Your task to perform on an android device: move an email to a new category in the gmail app Image 0: 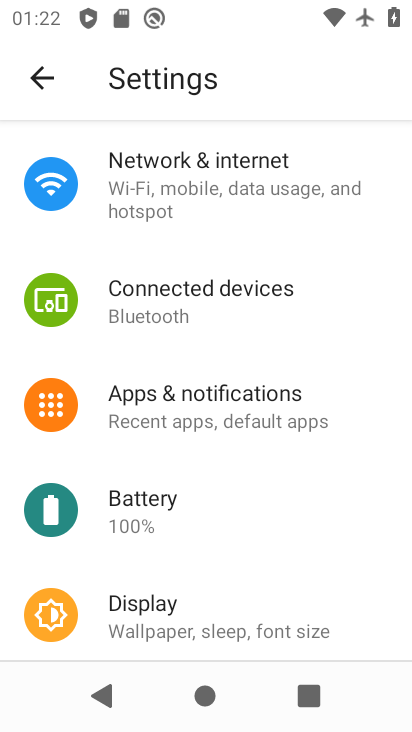
Step 0: press back button
Your task to perform on an android device: move an email to a new category in the gmail app Image 1: 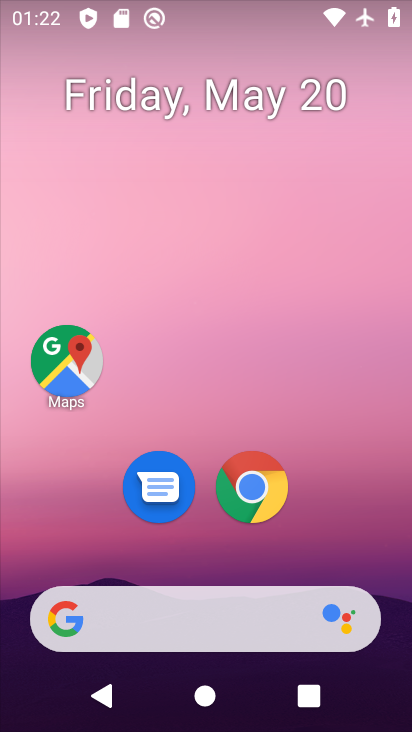
Step 1: drag from (364, 511) to (238, 1)
Your task to perform on an android device: move an email to a new category in the gmail app Image 2: 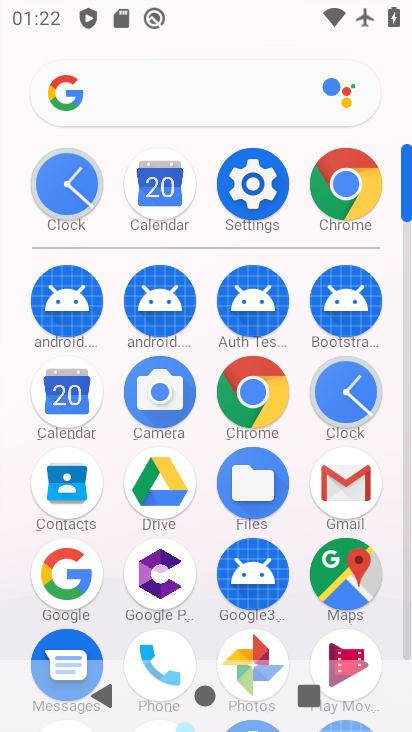
Step 2: drag from (4, 589) to (0, 277)
Your task to perform on an android device: move an email to a new category in the gmail app Image 3: 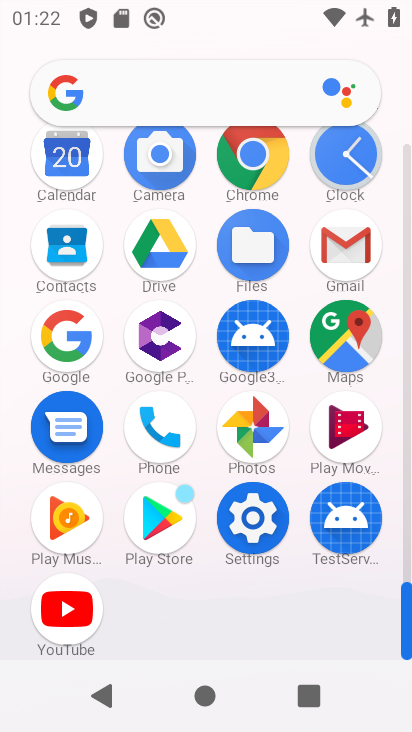
Step 3: drag from (7, 573) to (7, 335)
Your task to perform on an android device: move an email to a new category in the gmail app Image 4: 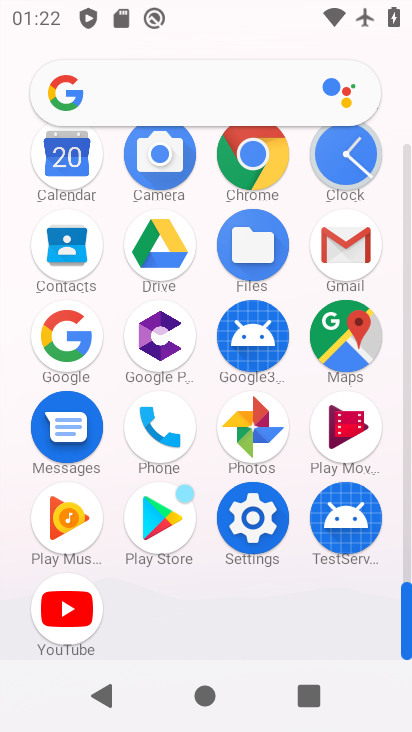
Step 4: click (345, 239)
Your task to perform on an android device: move an email to a new category in the gmail app Image 5: 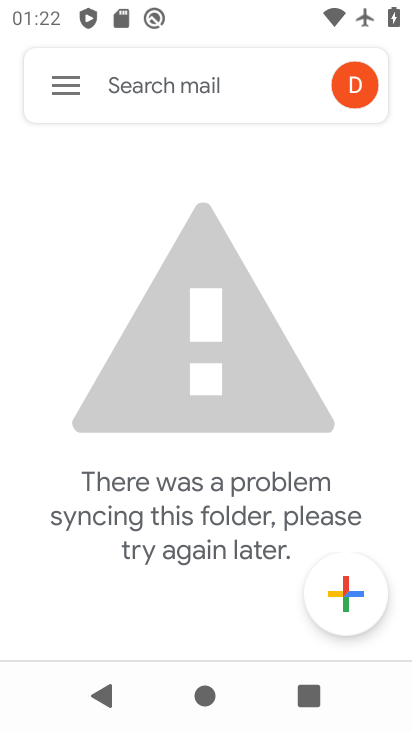
Step 5: click (51, 85)
Your task to perform on an android device: move an email to a new category in the gmail app Image 6: 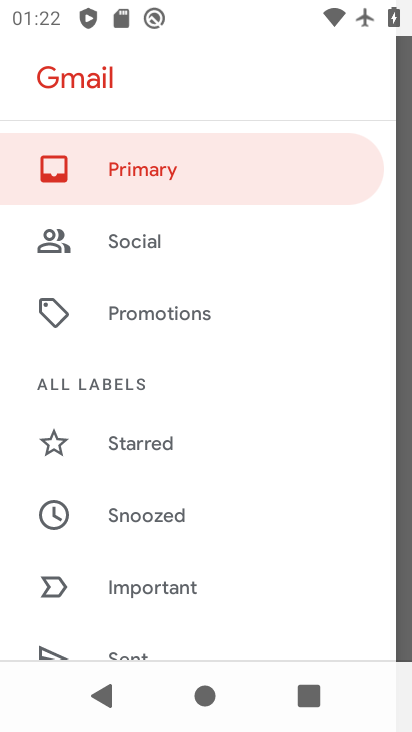
Step 6: drag from (173, 595) to (225, 219)
Your task to perform on an android device: move an email to a new category in the gmail app Image 7: 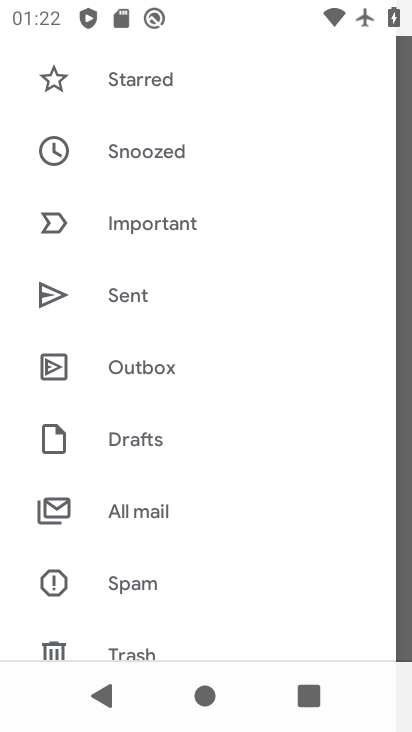
Step 7: click (166, 504)
Your task to perform on an android device: move an email to a new category in the gmail app Image 8: 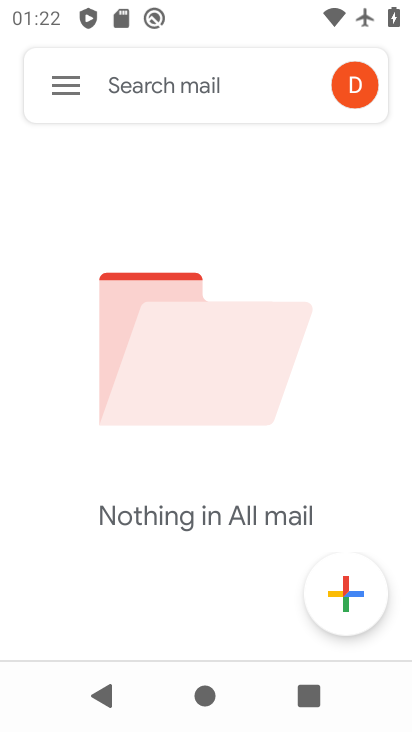
Step 8: click (56, 81)
Your task to perform on an android device: move an email to a new category in the gmail app Image 9: 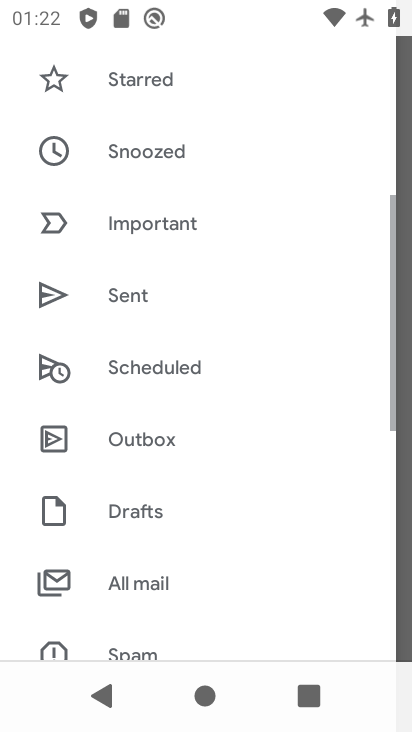
Step 9: drag from (225, 182) to (225, 606)
Your task to perform on an android device: move an email to a new category in the gmail app Image 10: 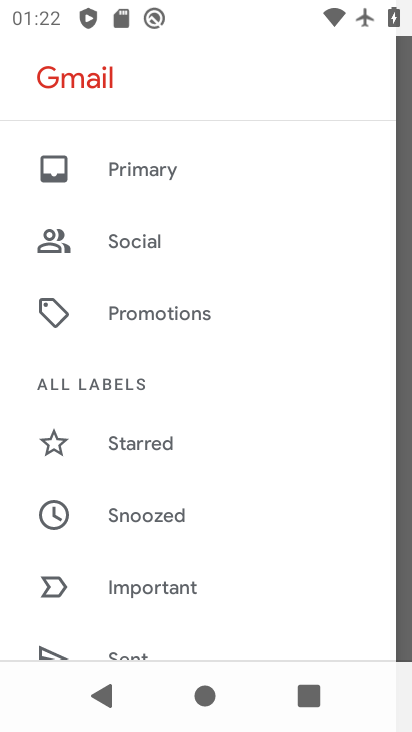
Step 10: click (183, 155)
Your task to perform on an android device: move an email to a new category in the gmail app Image 11: 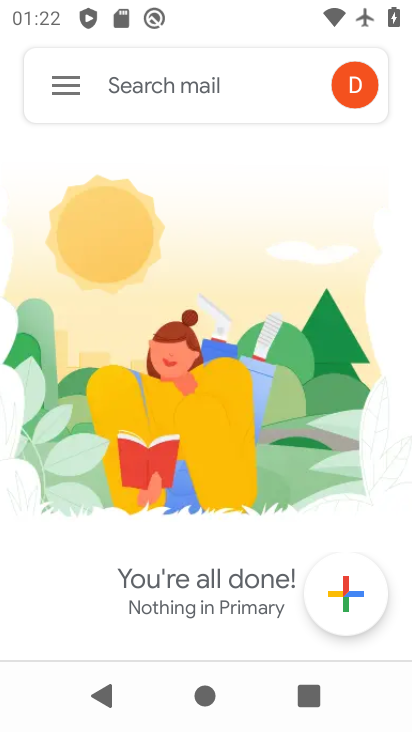
Step 11: drag from (254, 306) to (226, 596)
Your task to perform on an android device: move an email to a new category in the gmail app Image 12: 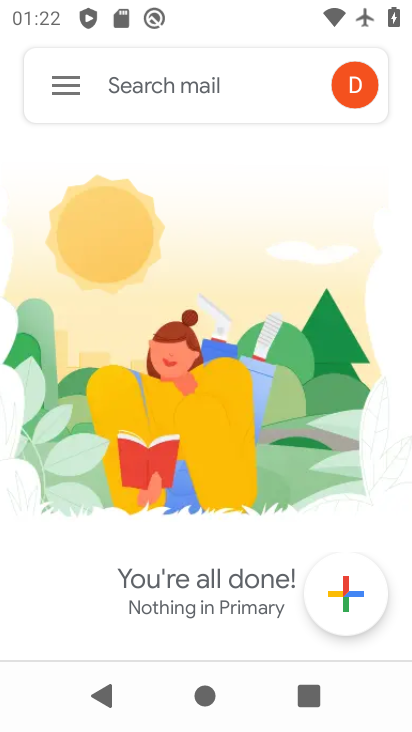
Step 12: click (54, 78)
Your task to perform on an android device: move an email to a new category in the gmail app Image 13: 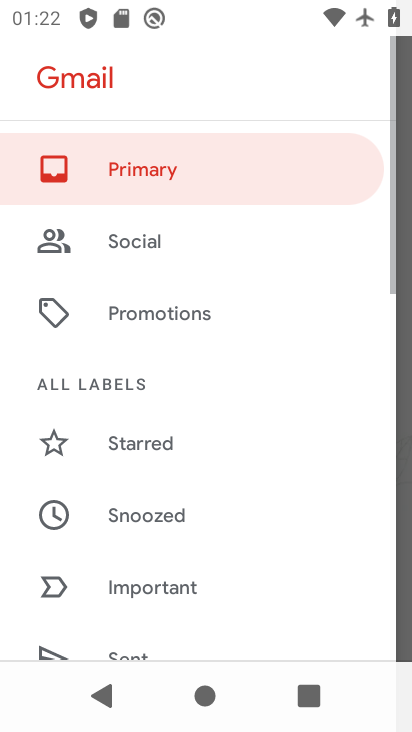
Step 13: drag from (182, 621) to (233, 107)
Your task to perform on an android device: move an email to a new category in the gmail app Image 14: 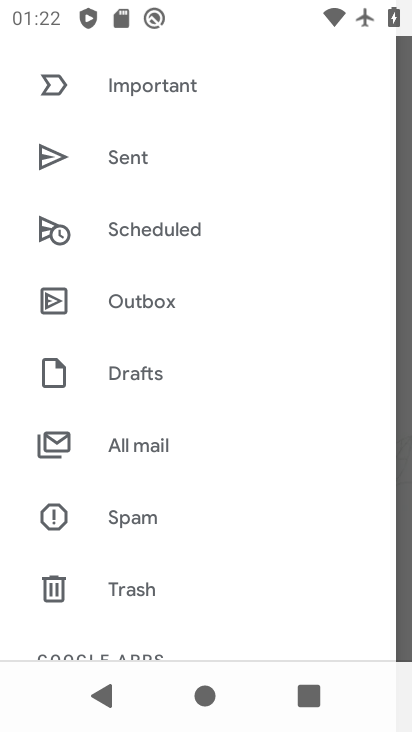
Step 14: click (180, 437)
Your task to perform on an android device: move an email to a new category in the gmail app Image 15: 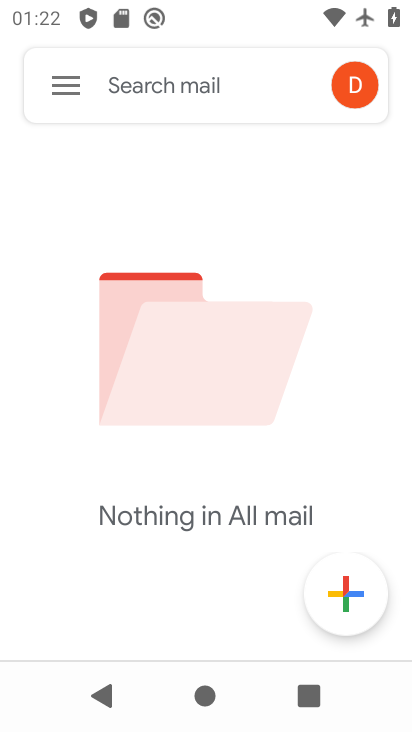
Step 15: task complete